Your task to perform on an android device: open a bookmark in the chrome app Image 0: 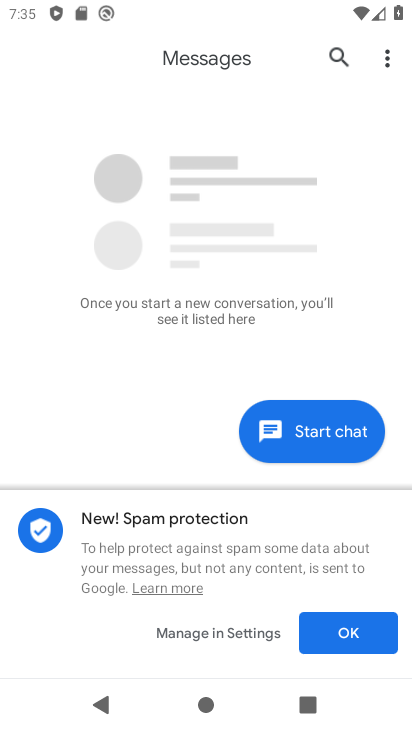
Step 0: press home button
Your task to perform on an android device: open a bookmark in the chrome app Image 1: 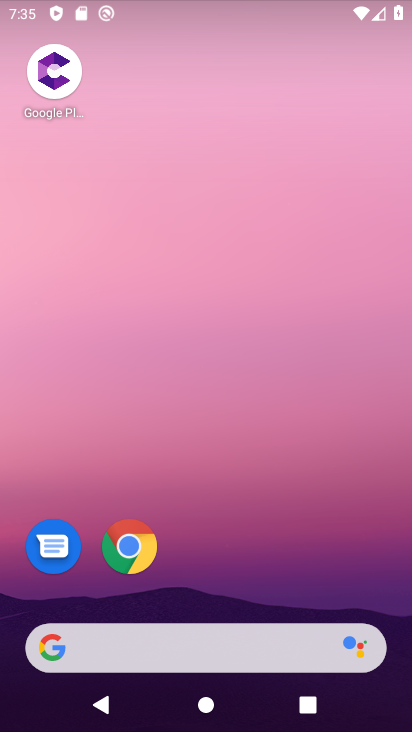
Step 1: drag from (336, 573) to (289, 185)
Your task to perform on an android device: open a bookmark in the chrome app Image 2: 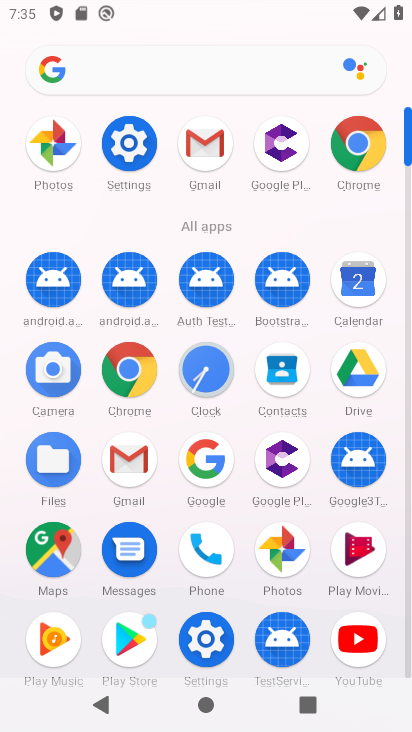
Step 2: click (106, 382)
Your task to perform on an android device: open a bookmark in the chrome app Image 3: 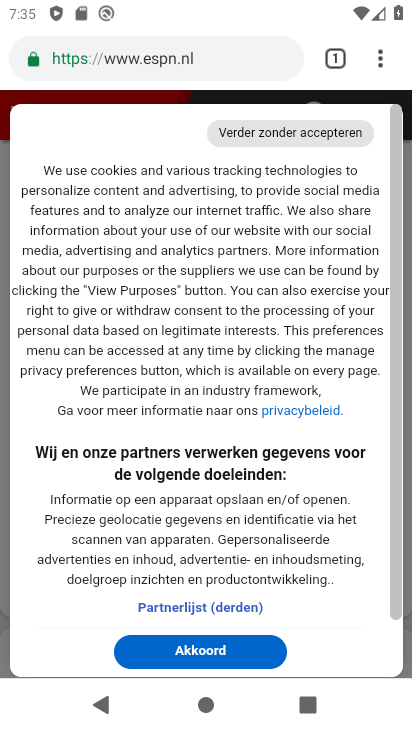
Step 3: drag from (382, 63) to (205, 228)
Your task to perform on an android device: open a bookmark in the chrome app Image 4: 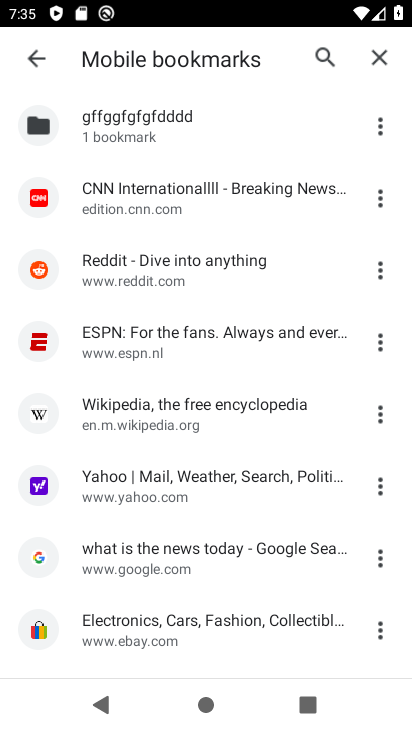
Step 4: click (385, 129)
Your task to perform on an android device: open a bookmark in the chrome app Image 5: 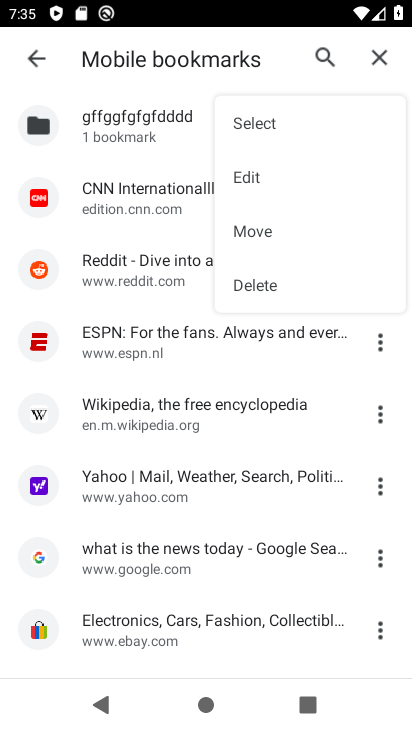
Step 5: click (266, 283)
Your task to perform on an android device: open a bookmark in the chrome app Image 6: 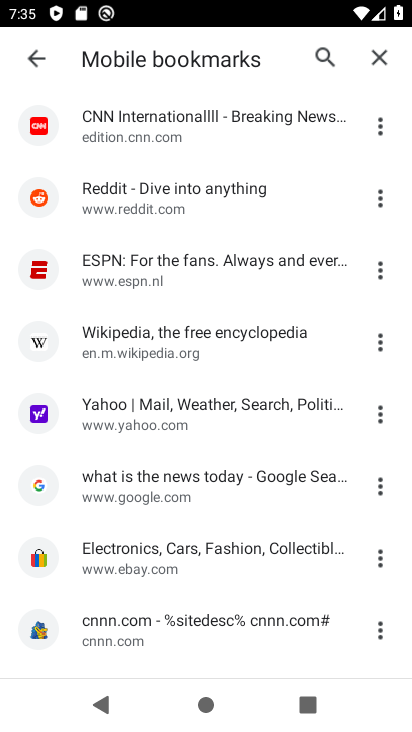
Step 6: task complete